Your task to perform on an android device: Open Chrome and go to settings Image 0: 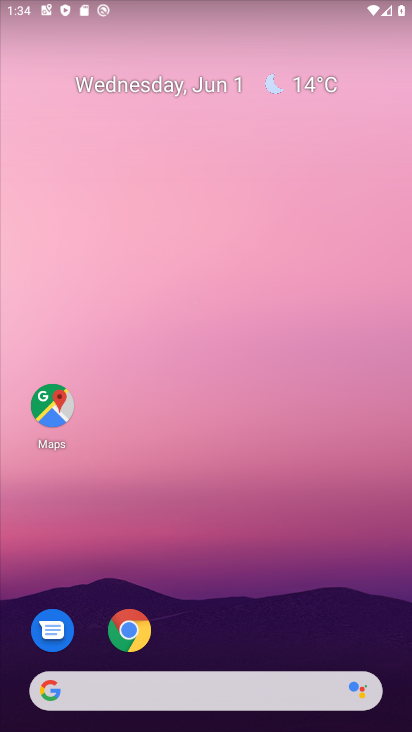
Step 0: drag from (211, 647) to (251, 76)
Your task to perform on an android device: Open Chrome and go to settings Image 1: 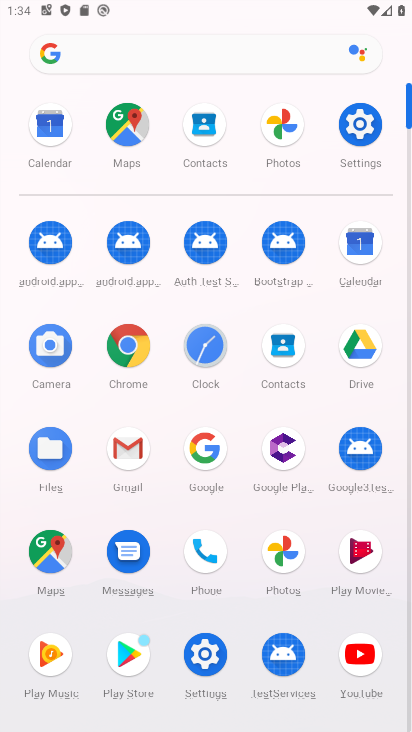
Step 1: click (128, 339)
Your task to perform on an android device: Open Chrome and go to settings Image 2: 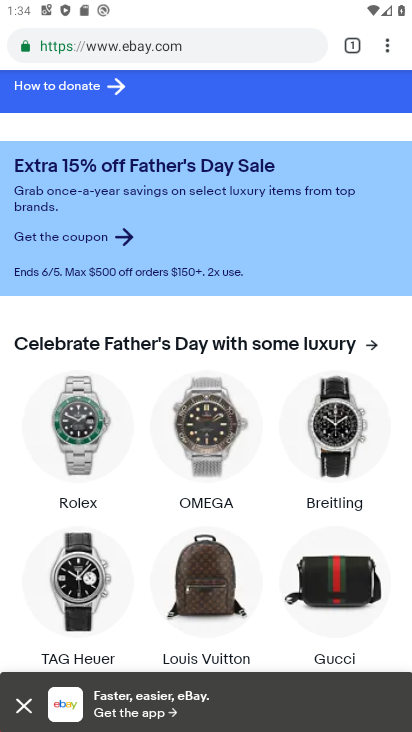
Step 2: click (384, 44)
Your task to perform on an android device: Open Chrome and go to settings Image 3: 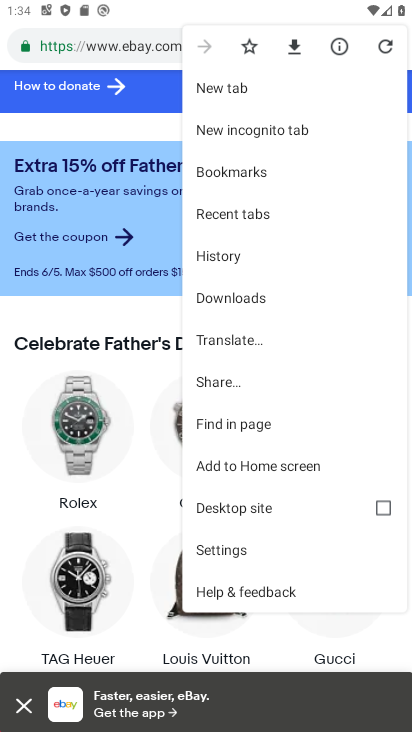
Step 3: click (256, 548)
Your task to perform on an android device: Open Chrome and go to settings Image 4: 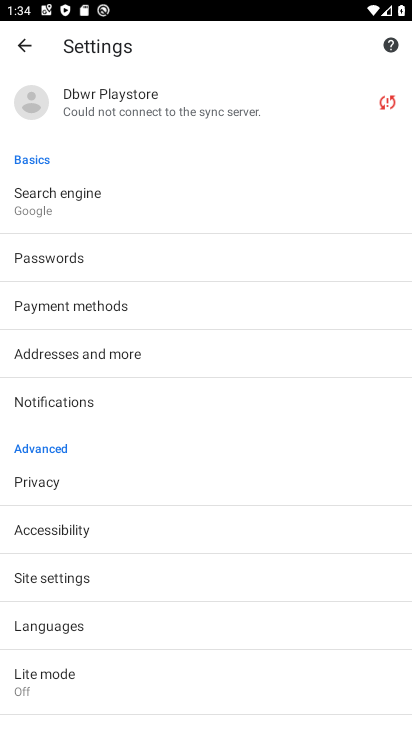
Step 4: task complete